Your task to perform on an android device: open device folders in google photos Image 0: 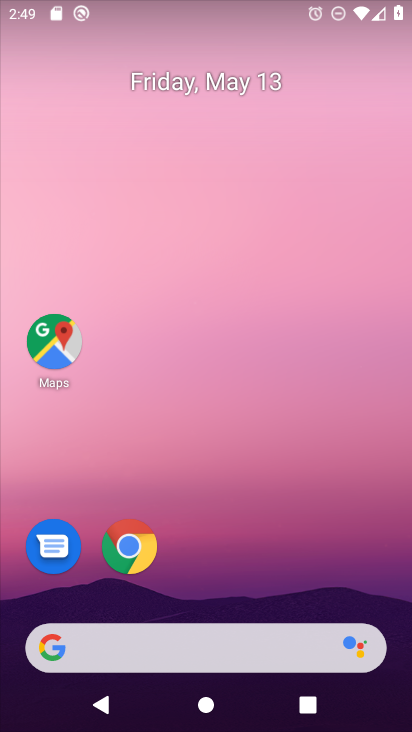
Step 0: drag from (267, 575) to (265, 141)
Your task to perform on an android device: open device folders in google photos Image 1: 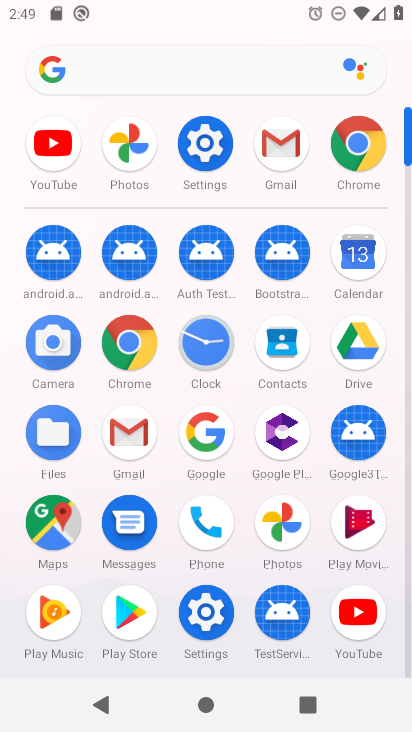
Step 1: click (282, 519)
Your task to perform on an android device: open device folders in google photos Image 2: 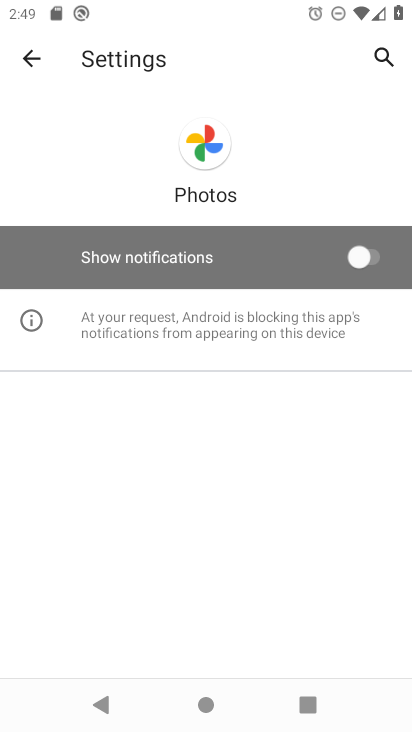
Step 2: click (39, 48)
Your task to perform on an android device: open device folders in google photos Image 3: 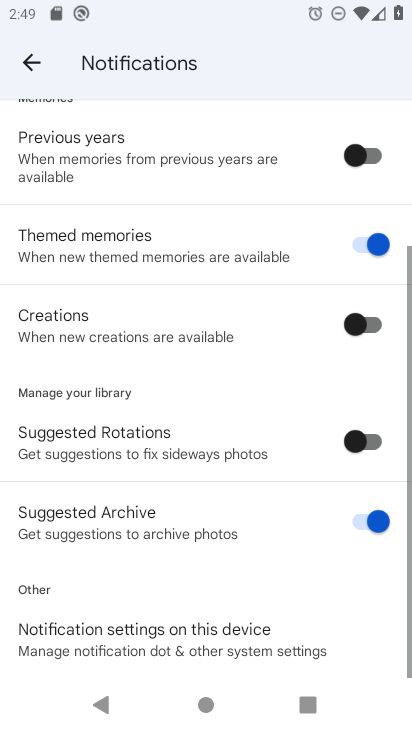
Step 3: click (39, 48)
Your task to perform on an android device: open device folders in google photos Image 4: 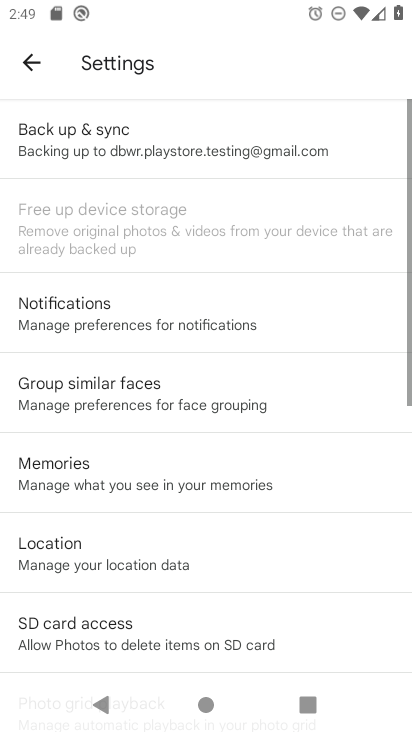
Step 4: click (37, 49)
Your task to perform on an android device: open device folders in google photos Image 5: 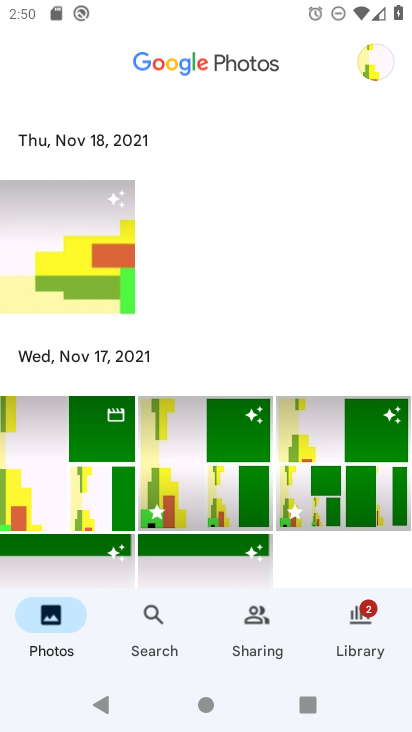
Step 5: click (369, 621)
Your task to perform on an android device: open device folders in google photos Image 6: 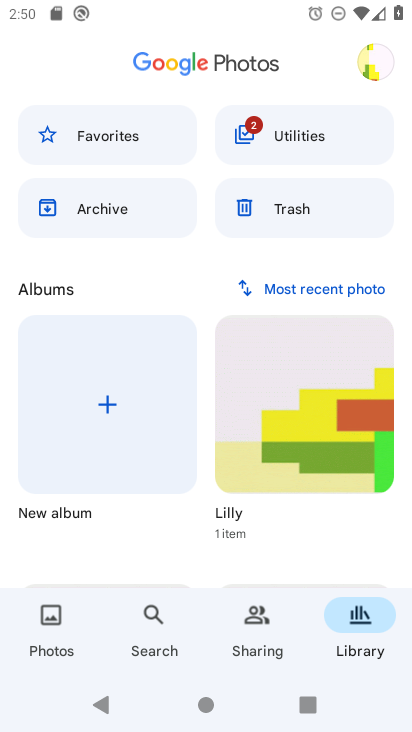
Step 6: drag from (208, 540) to (184, 565)
Your task to perform on an android device: open device folders in google photos Image 7: 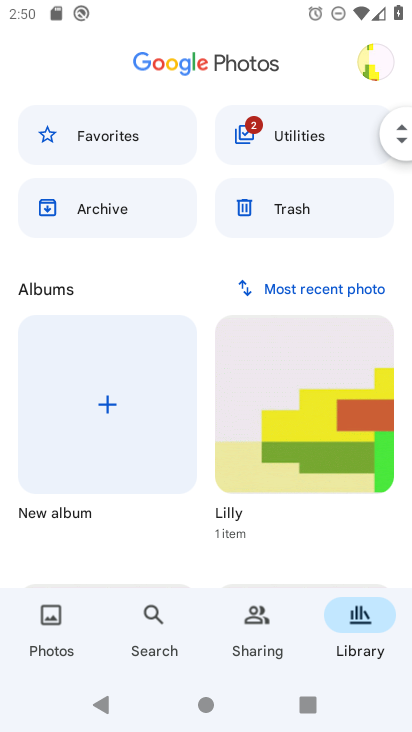
Step 7: click (259, 132)
Your task to perform on an android device: open device folders in google photos Image 8: 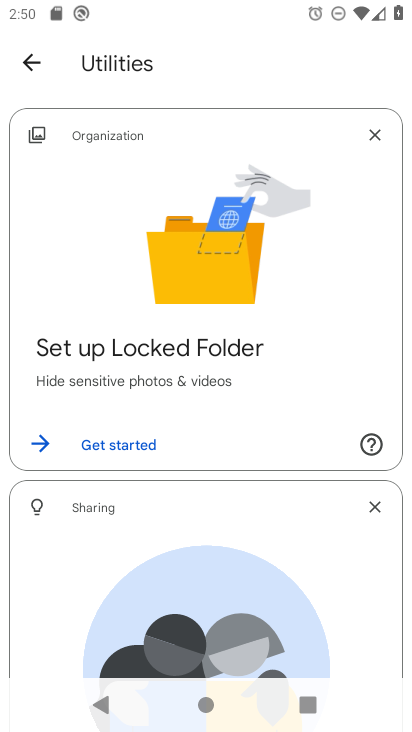
Step 8: drag from (246, 458) to (218, 58)
Your task to perform on an android device: open device folders in google photos Image 9: 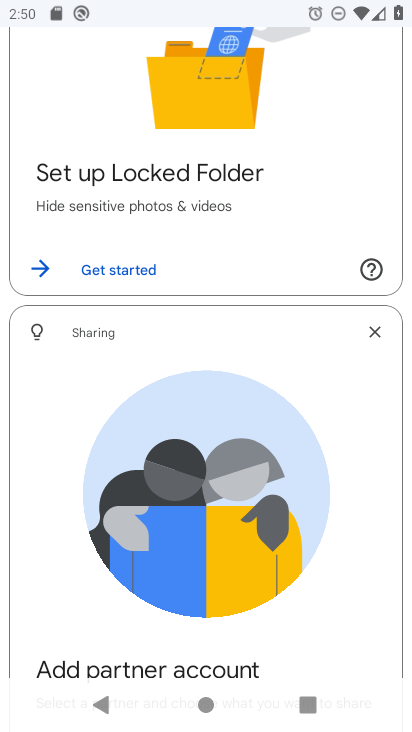
Step 9: drag from (208, 491) to (207, 128)
Your task to perform on an android device: open device folders in google photos Image 10: 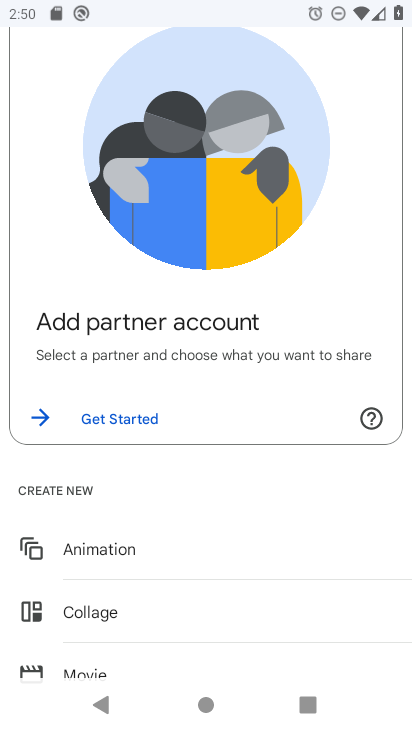
Step 10: drag from (112, 125) to (197, 37)
Your task to perform on an android device: open device folders in google photos Image 11: 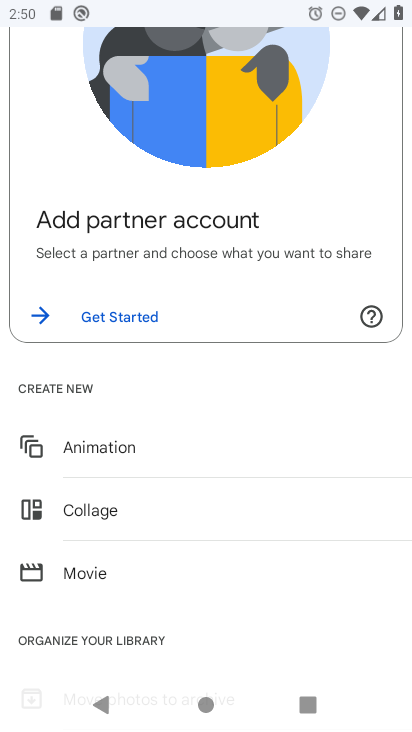
Step 11: drag from (142, 519) to (251, 173)
Your task to perform on an android device: open device folders in google photos Image 12: 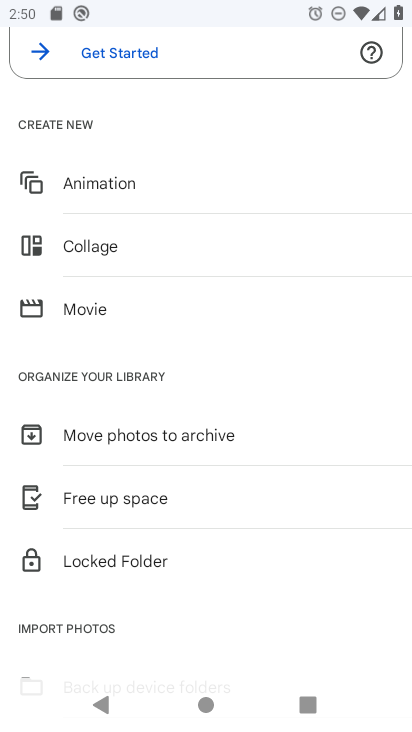
Step 12: drag from (225, 593) to (252, 145)
Your task to perform on an android device: open device folders in google photos Image 13: 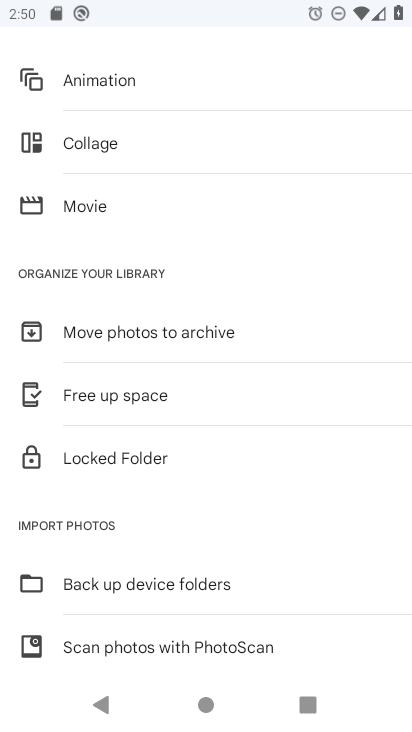
Step 13: click (158, 584)
Your task to perform on an android device: open device folders in google photos Image 14: 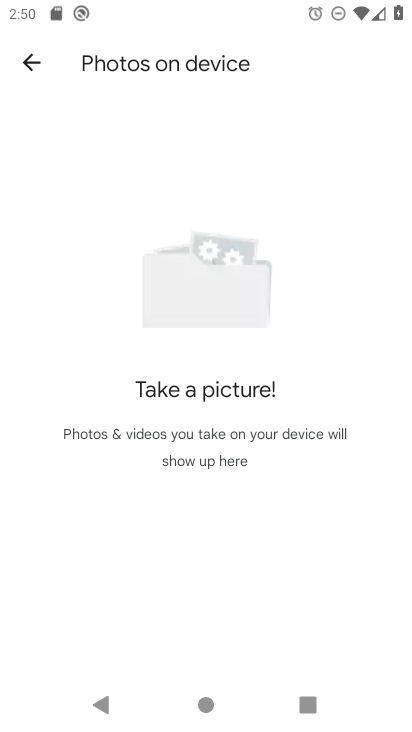
Step 14: task complete